Your task to perform on an android device: Open the calendar and show me this week's events Image 0: 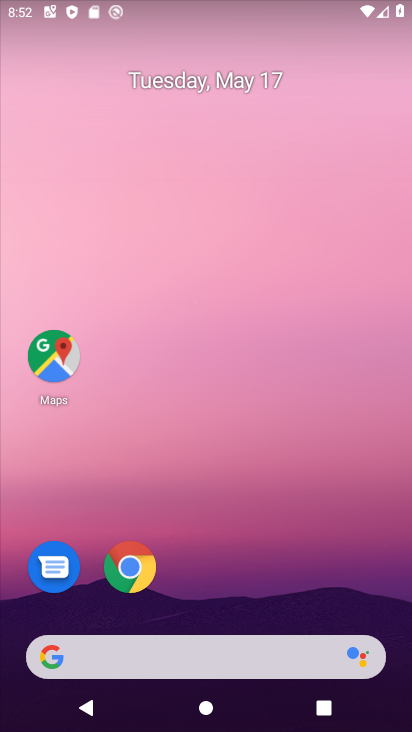
Step 0: drag from (249, 478) to (171, 65)
Your task to perform on an android device: Open the calendar and show me this week's events Image 1: 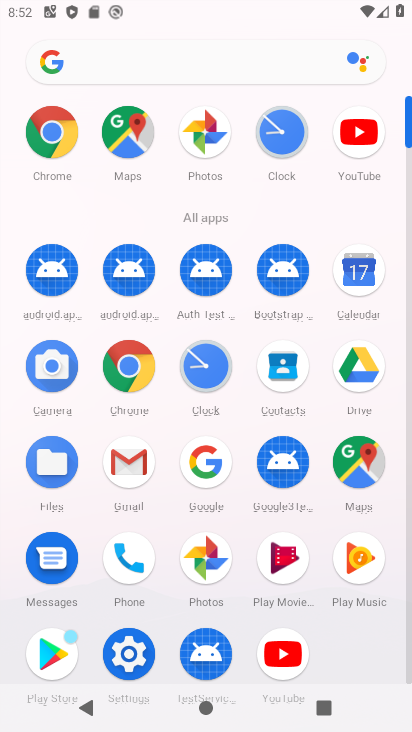
Step 1: click (361, 271)
Your task to perform on an android device: Open the calendar and show me this week's events Image 2: 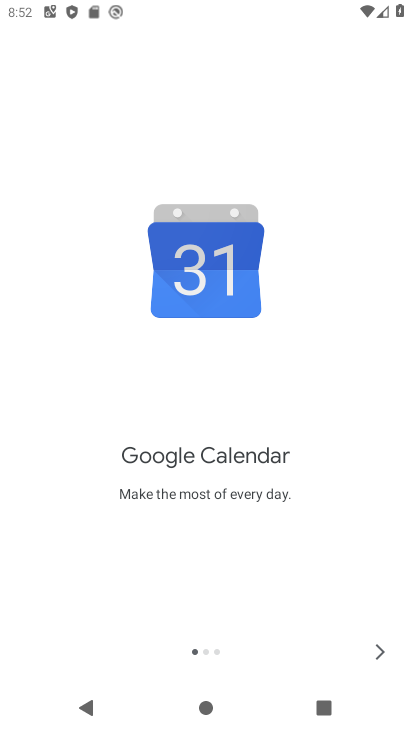
Step 2: click (375, 648)
Your task to perform on an android device: Open the calendar and show me this week's events Image 3: 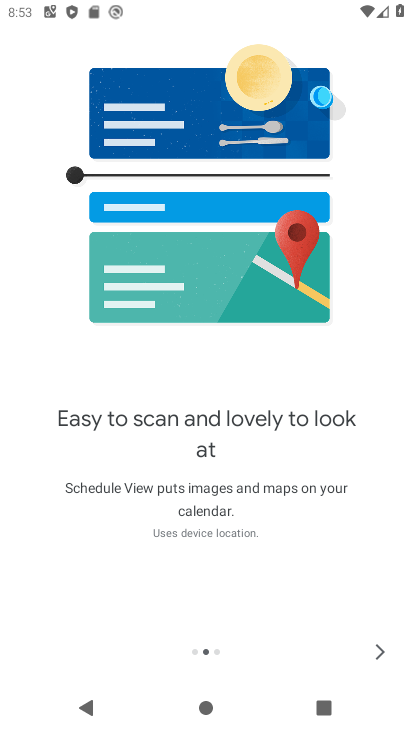
Step 3: click (375, 648)
Your task to perform on an android device: Open the calendar and show me this week's events Image 4: 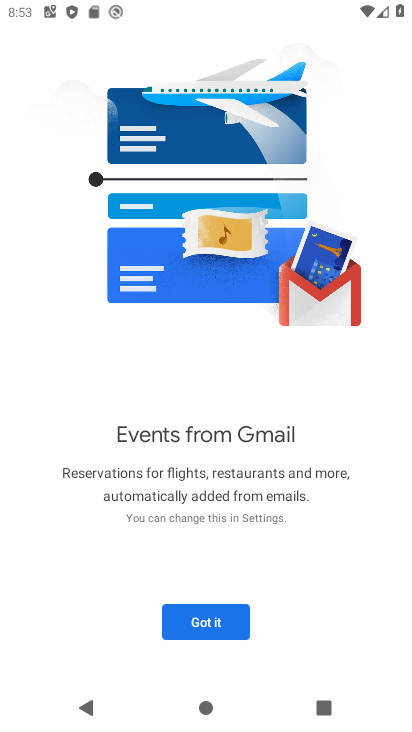
Step 4: click (209, 617)
Your task to perform on an android device: Open the calendar and show me this week's events Image 5: 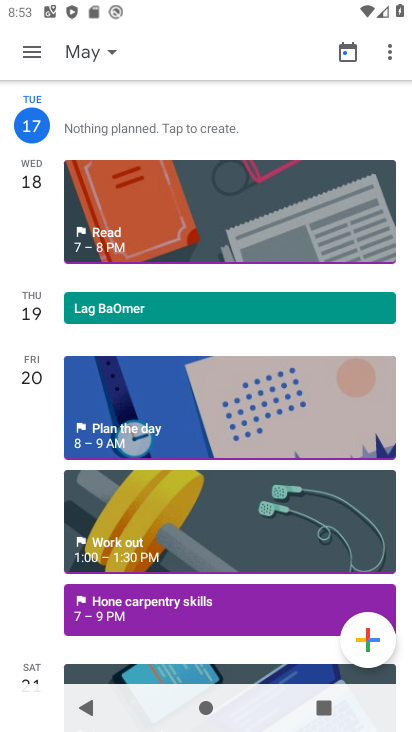
Step 5: click (33, 49)
Your task to perform on an android device: Open the calendar and show me this week's events Image 6: 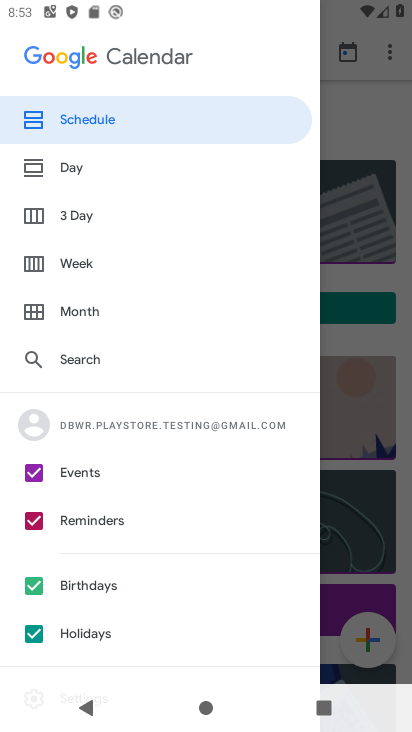
Step 6: click (78, 257)
Your task to perform on an android device: Open the calendar and show me this week's events Image 7: 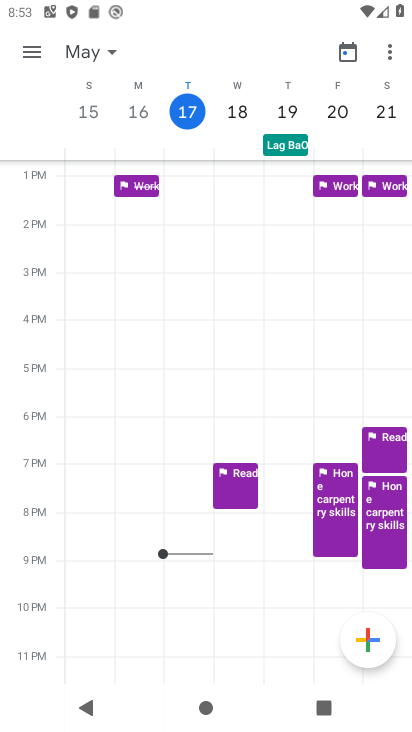
Step 7: task complete